Your task to perform on an android device: Open Google Chrome and click the shortcut for Amazon.com Image 0: 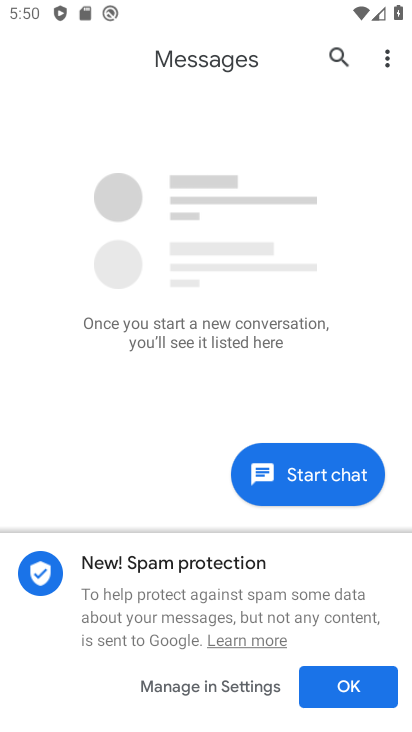
Step 0: press back button
Your task to perform on an android device: Open Google Chrome and click the shortcut for Amazon.com Image 1: 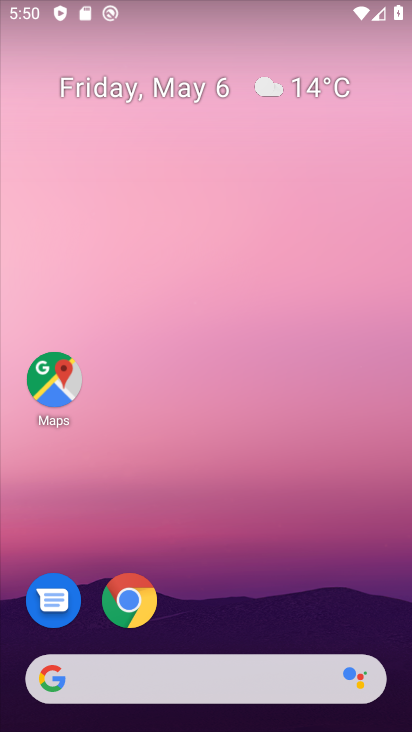
Step 1: click (129, 601)
Your task to perform on an android device: Open Google Chrome and click the shortcut for Amazon.com Image 2: 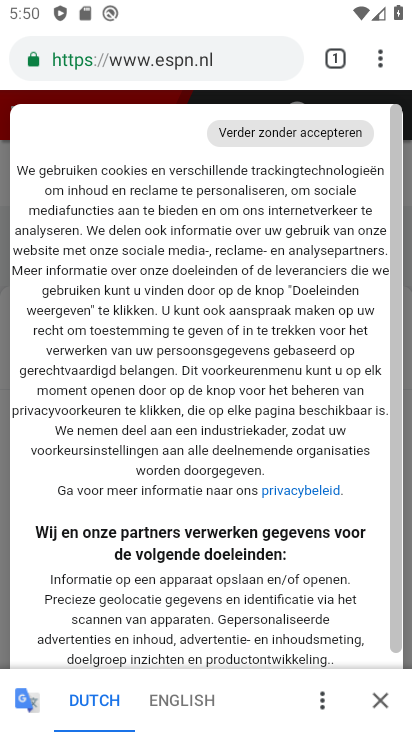
Step 2: click (267, 53)
Your task to perform on an android device: Open Google Chrome and click the shortcut for Amazon.com Image 3: 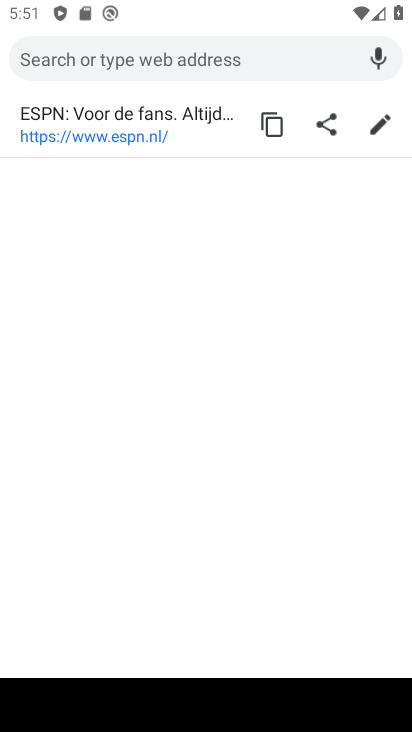
Step 3: type "Amazon.com"
Your task to perform on an android device: Open Google Chrome and click the shortcut for Amazon.com Image 4: 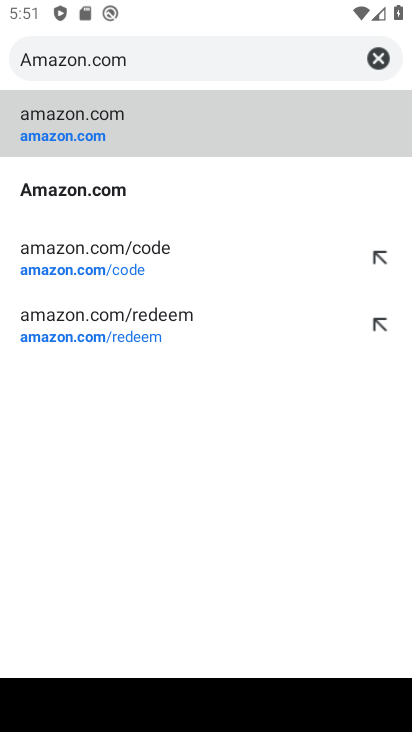
Step 4: click (106, 191)
Your task to perform on an android device: Open Google Chrome and click the shortcut for Amazon.com Image 5: 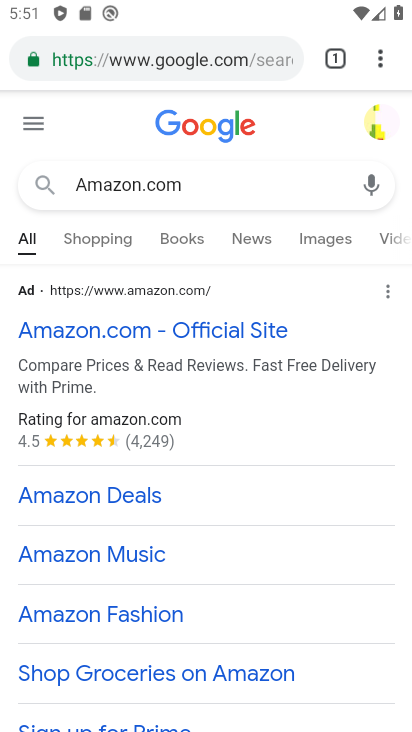
Step 5: click (83, 325)
Your task to perform on an android device: Open Google Chrome and click the shortcut for Amazon.com Image 6: 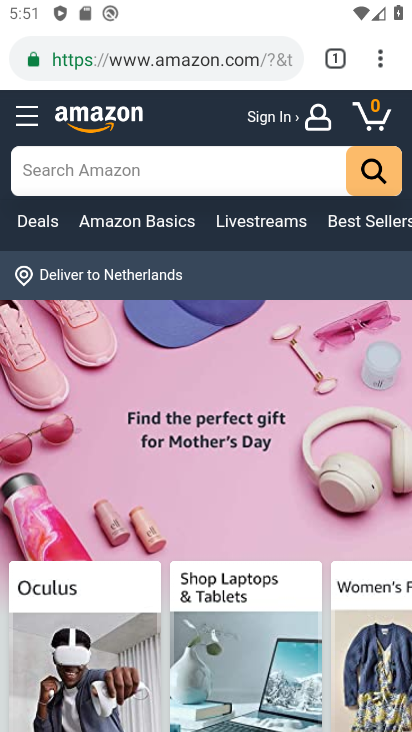
Step 6: click (379, 64)
Your task to perform on an android device: Open Google Chrome and click the shortcut for Amazon.com Image 7: 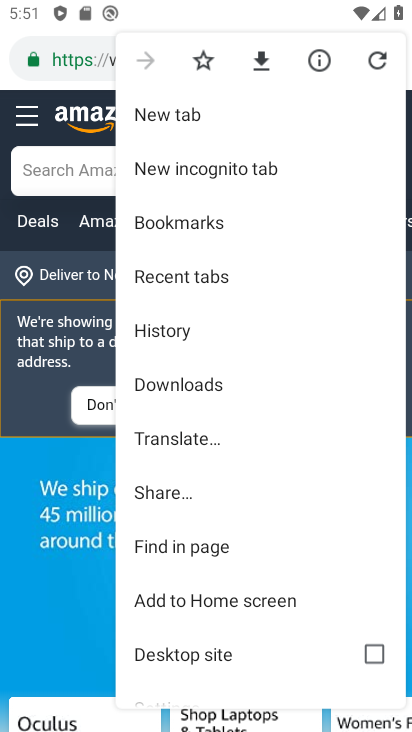
Step 7: click (212, 593)
Your task to perform on an android device: Open Google Chrome and click the shortcut for Amazon.com Image 8: 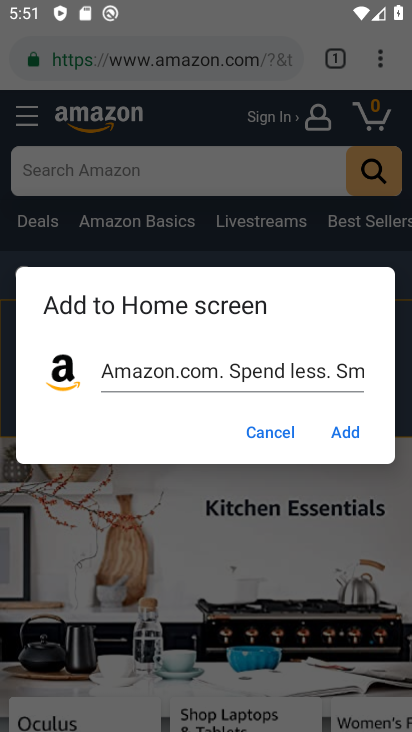
Step 8: click (341, 422)
Your task to perform on an android device: Open Google Chrome and click the shortcut for Amazon.com Image 9: 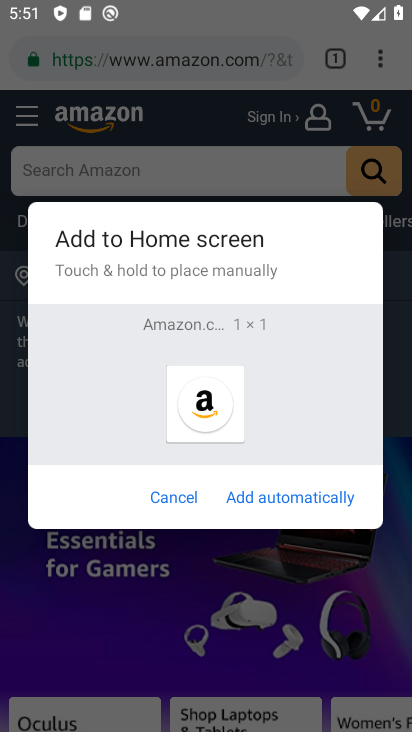
Step 9: click (318, 498)
Your task to perform on an android device: Open Google Chrome and click the shortcut for Amazon.com Image 10: 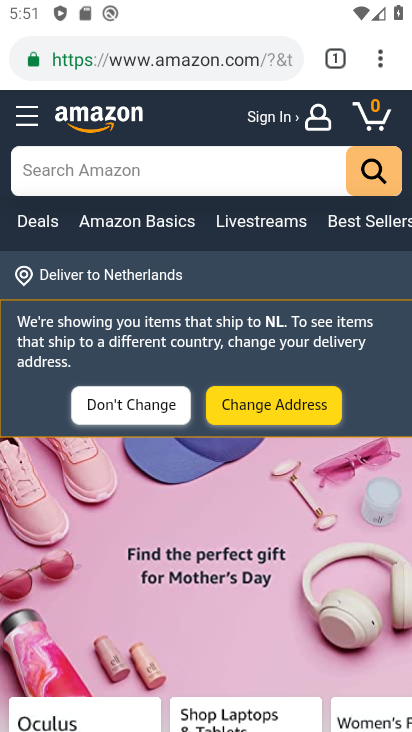
Step 10: task complete